Your task to perform on an android device: What's the weather going to be this weekend? Image 0: 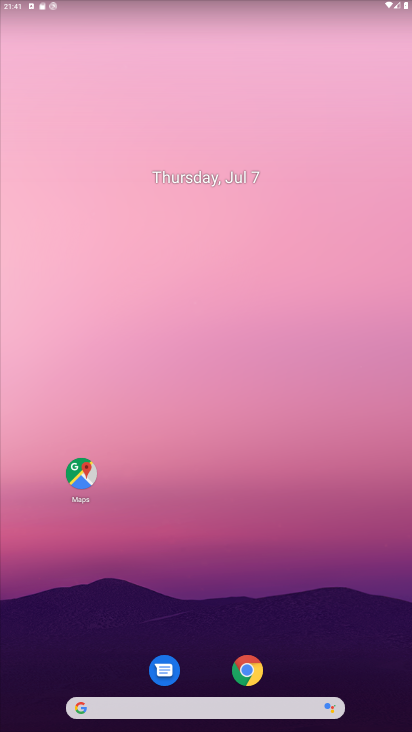
Step 0: click (256, 696)
Your task to perform on an android device: What's the weather going to be this weekend? Image 1: 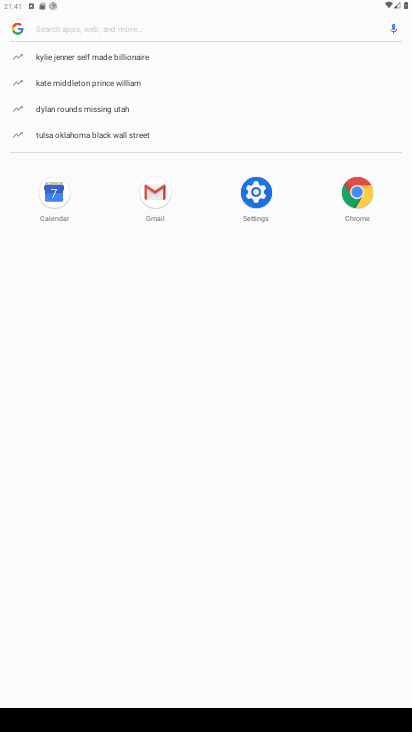
Step 1: click (200, 28)
Your task to perform on an android device: What's the weather going to be this weekend? Image 2: 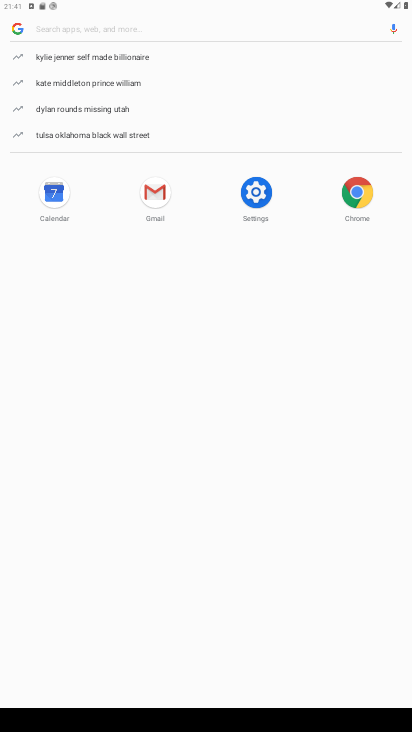
Step 2: type "weather"
Your task to perform on an android device: What's the weather going to be this weekend? Image 3: 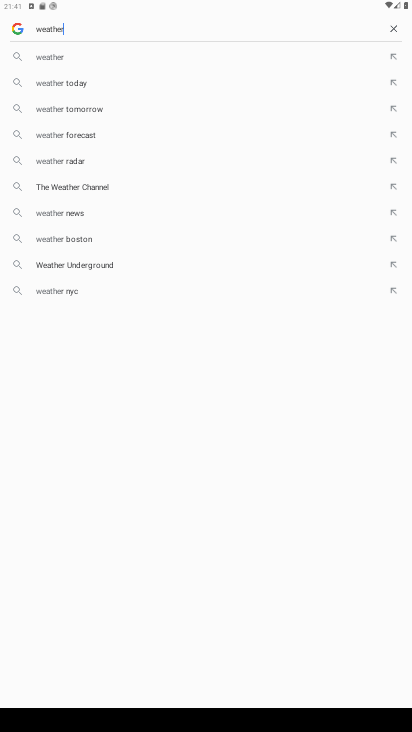
Step 3: type ""
Your task to perform on an android device: What's the weather going to be this weekend? Image 4: 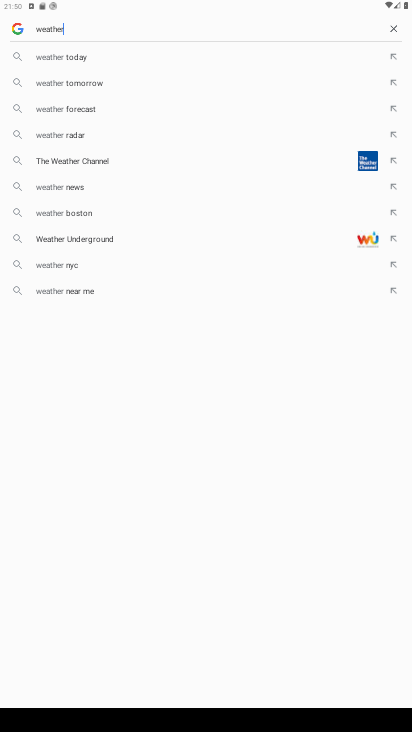
Step 4: task complete